Your task to perform on an android device: see sites visited before in the chrome app Image 0: 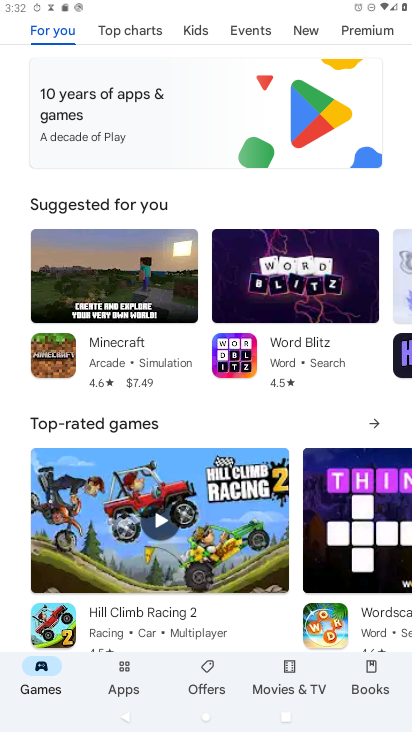
Step 0: press home button
Your task to perform on an android device: see sites visited before in the chrome app Image 1: 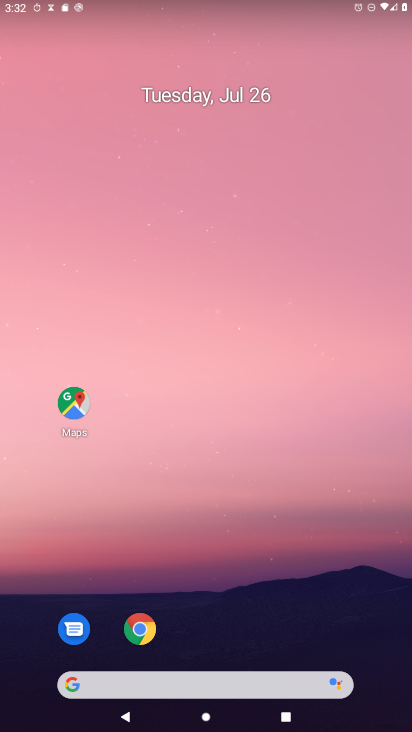
Step 1: drag from (277, 691) to (272, 12)
Your task to perform on an android device: see sites visited before in the chrome app Image 2: 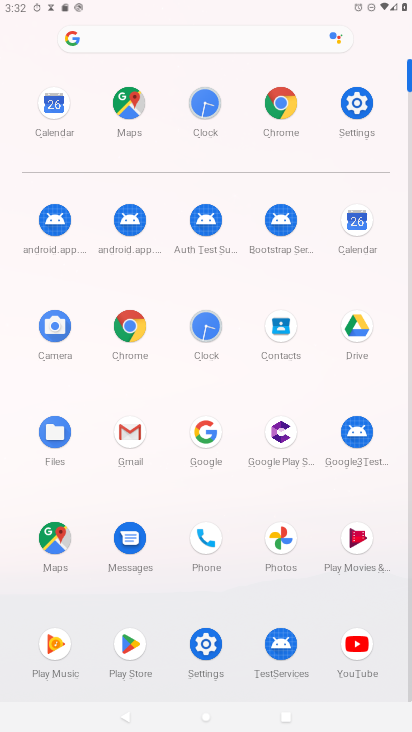
Step 2: click (140, 323)
Your task to perform on an android device: see sites visited before in the chrome app Image 3: 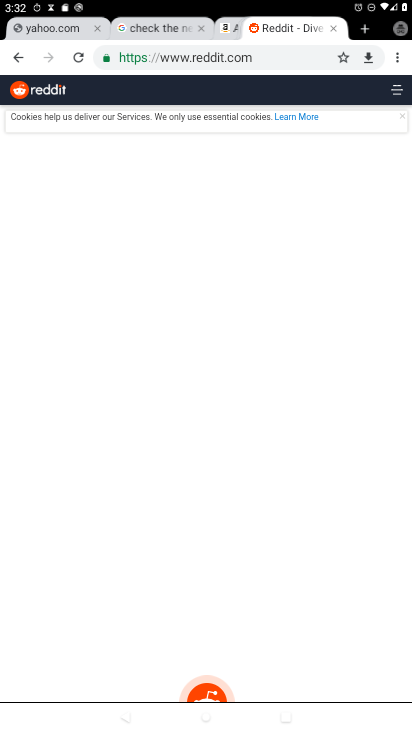
Step 3: click (392, 54)
Your task to perform on an android device: see sites visited before in the chrome app Image 4: 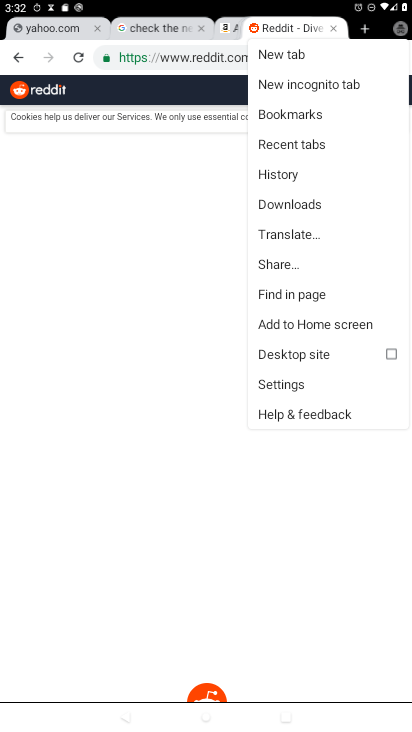
Step 4: click (296, 137)
Your task to perform on an android device: see sites visited before in the chrome app Image 5: 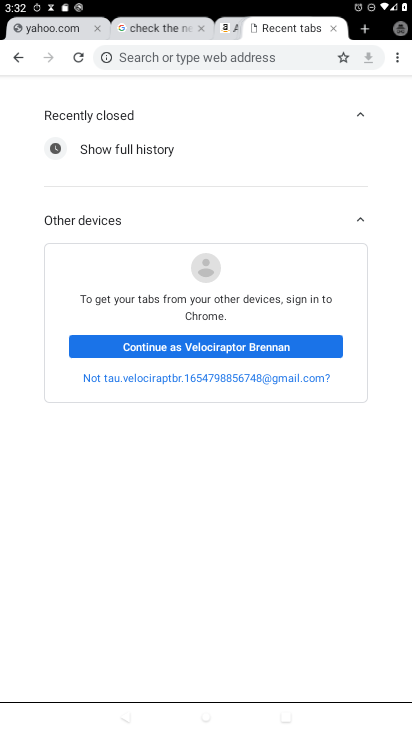
Step 5: task complete